Your task to perform on an android device: turn off location history Image 0: 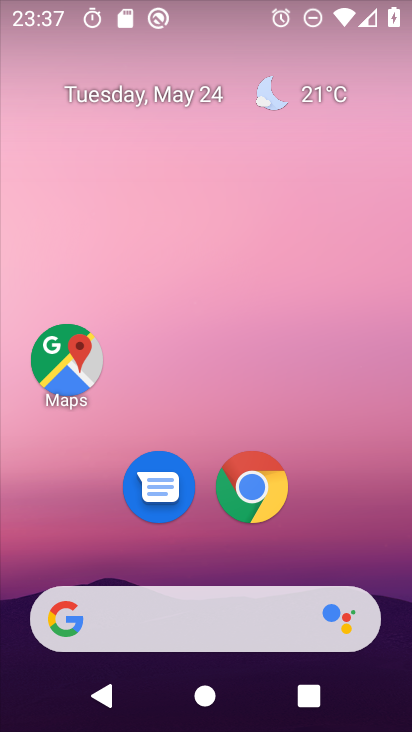
Step 0: click (63, 363)
Your task to perform on an android device: turn off location history Image 1: 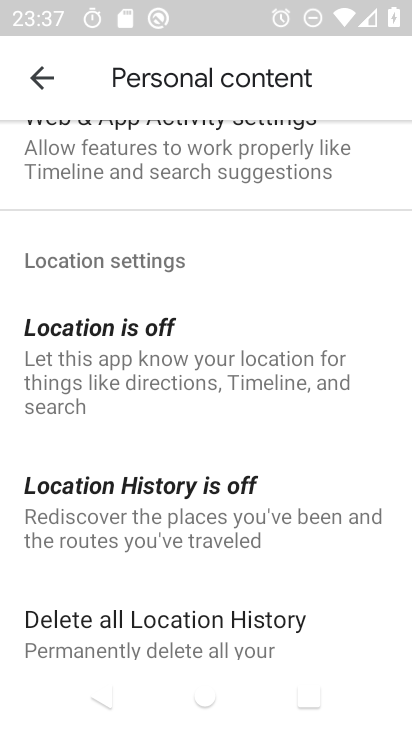
Step 1: click (118, 528)
Your task to perform on an android device: turn off location history Image 2: 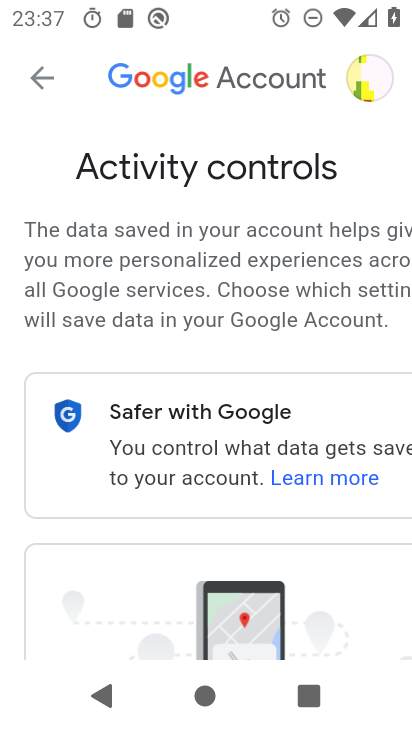
Step 2: drag from (157, 556) to (186, 156)
Your task to perform on an android device: turn off location history Image 3: 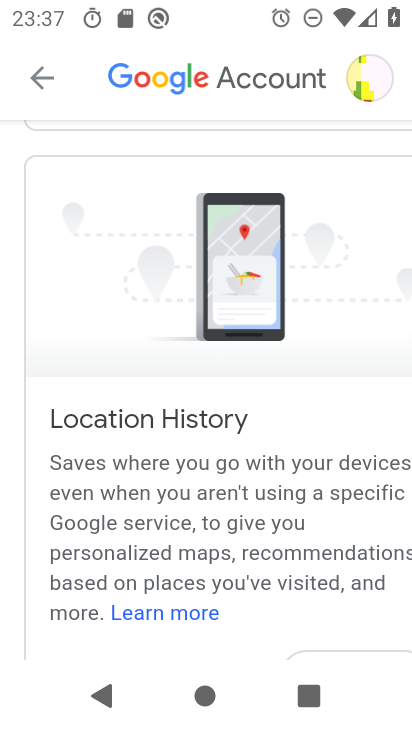
Step 3: drag from (221, 585) to (211, 154)
Your task to perform on an android device: turn off location history Image 4: 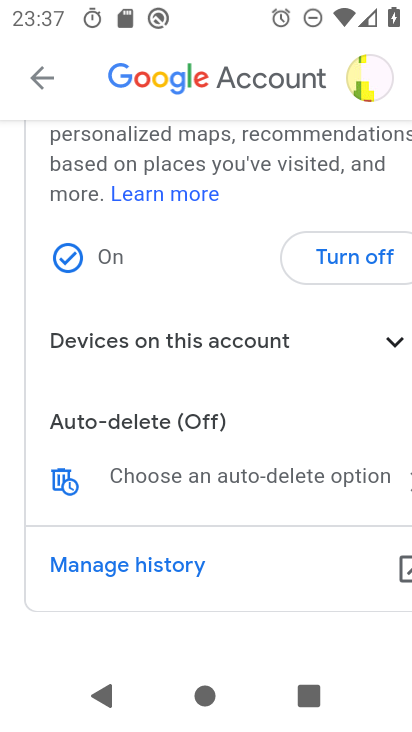
Step 4: click (352, 276)
Your task to perform on an android device: turn off location history Image 5: 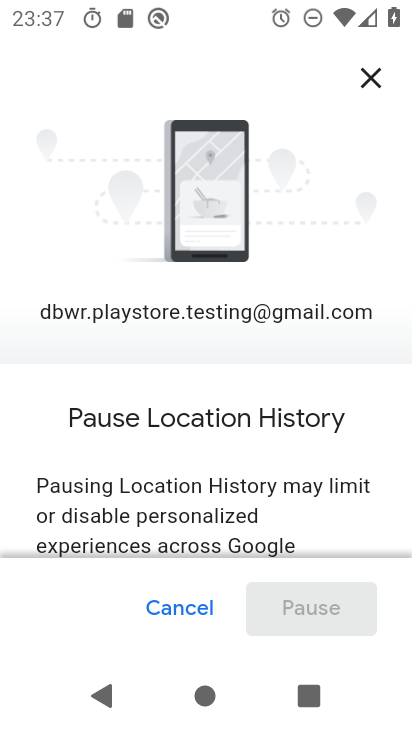
Step 5: drag from (209, 509) to (207, 2)
Your task to perform on an android device: turn off location history Image 6: 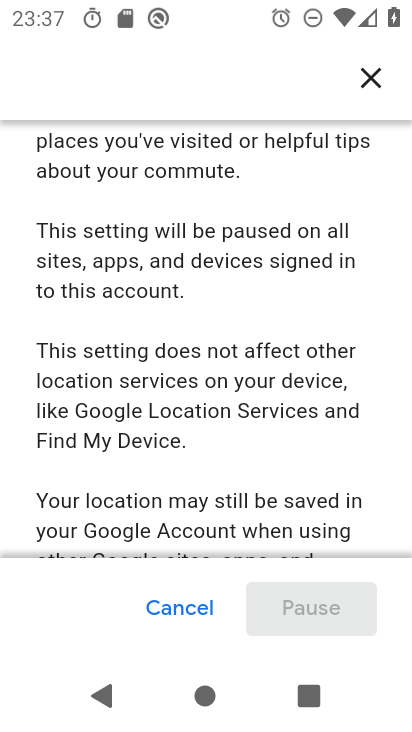
Step 6: drag from (156, 442) to (155, 40)
Your task to perform on an android device: turn off location history Image 7: 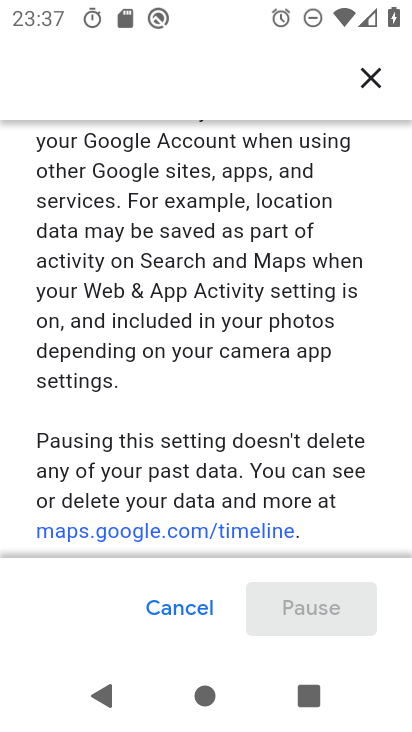
Step 7: drag from (176, 430) to (165, 55)
Your task to perform on an android device: turn off location history Image 8: 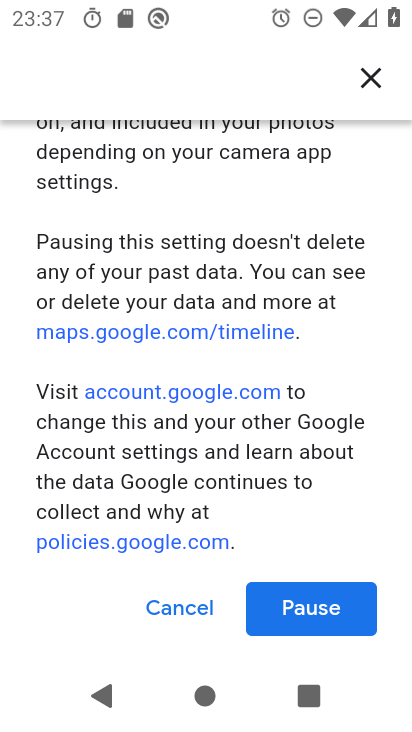
Step 8: click (315, 613)
Your task to perform on an android device: turn off location history Image 9: 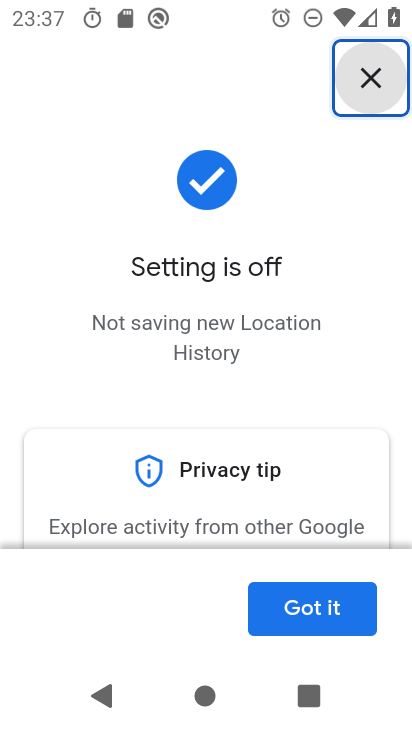
Step 9: click (297, 613)
Your task to perform on an android device: turn off location history Image 10: 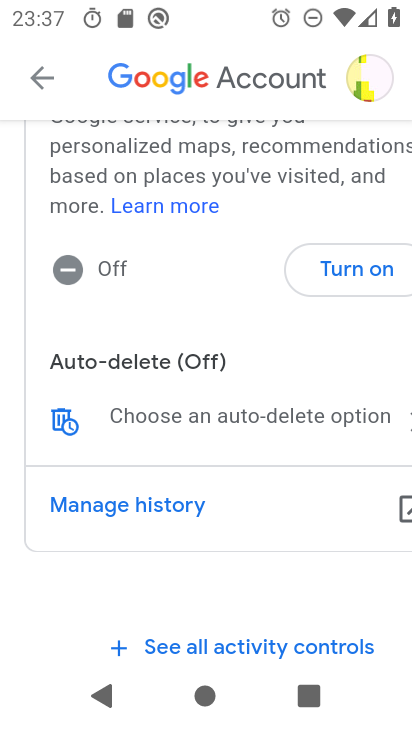
Step 10: task complete